Your task to perform on an android device: Show the shopping cart on costco. Add "razer kraken" to the cart on costco, then select checkout. Image 0: 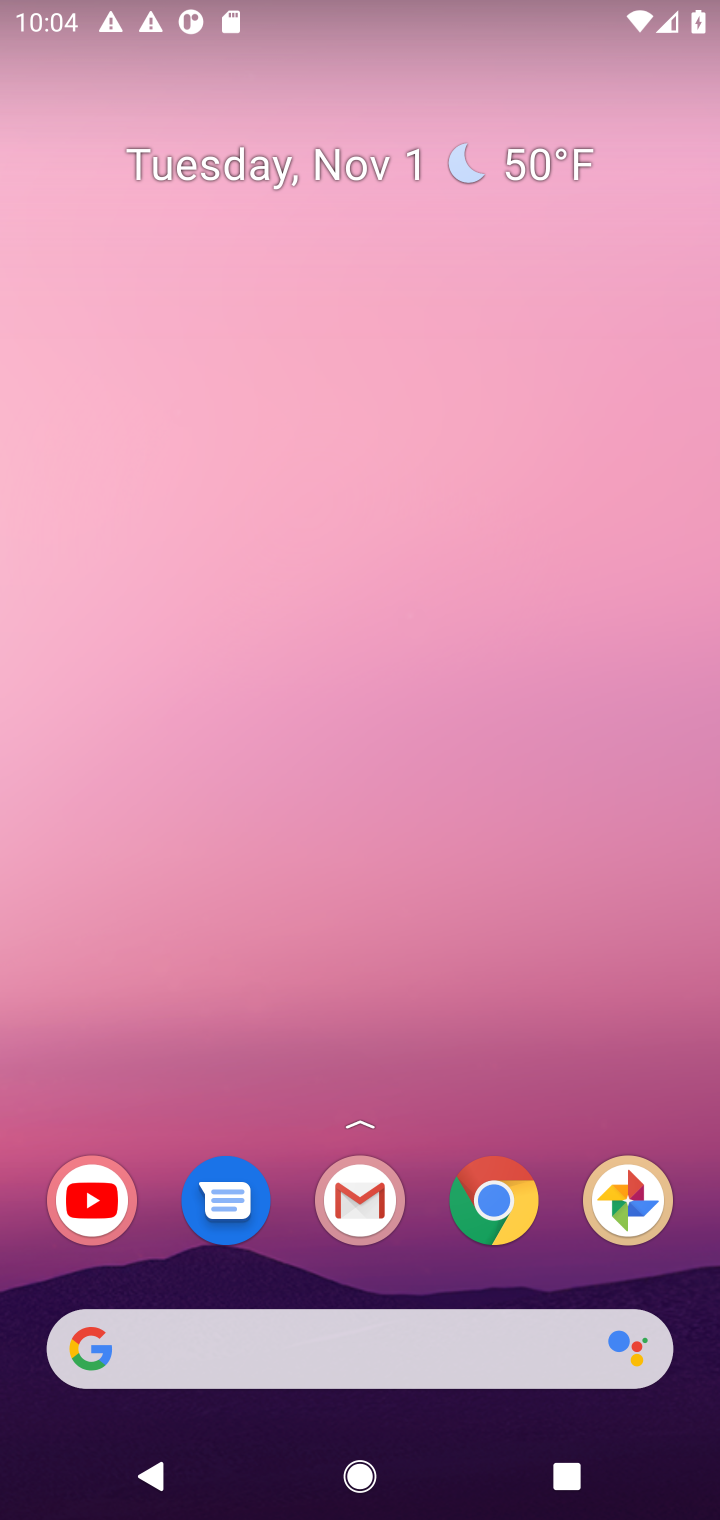
Step 0: click (300, 1351)
Your task to perform on an android device: Show the shopping cart on costco. Add "razer kraken" to the cart on costco, then select checkout. Image 1: 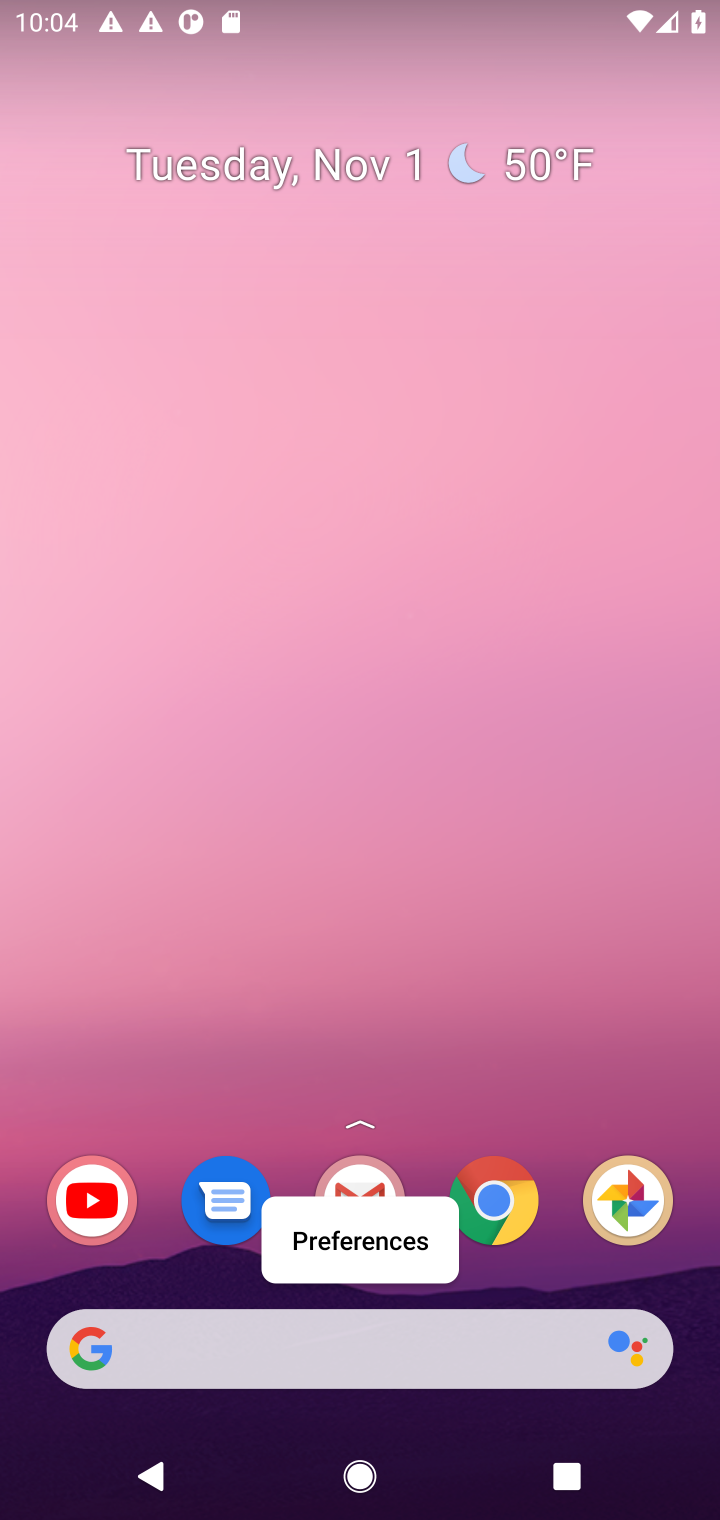
Step 1: click (298, 1346)
Your task to perform on an android device: Show the shopping cart on costco. Add "razer kraken" to the cart on costco, then select checkout. Image 2: 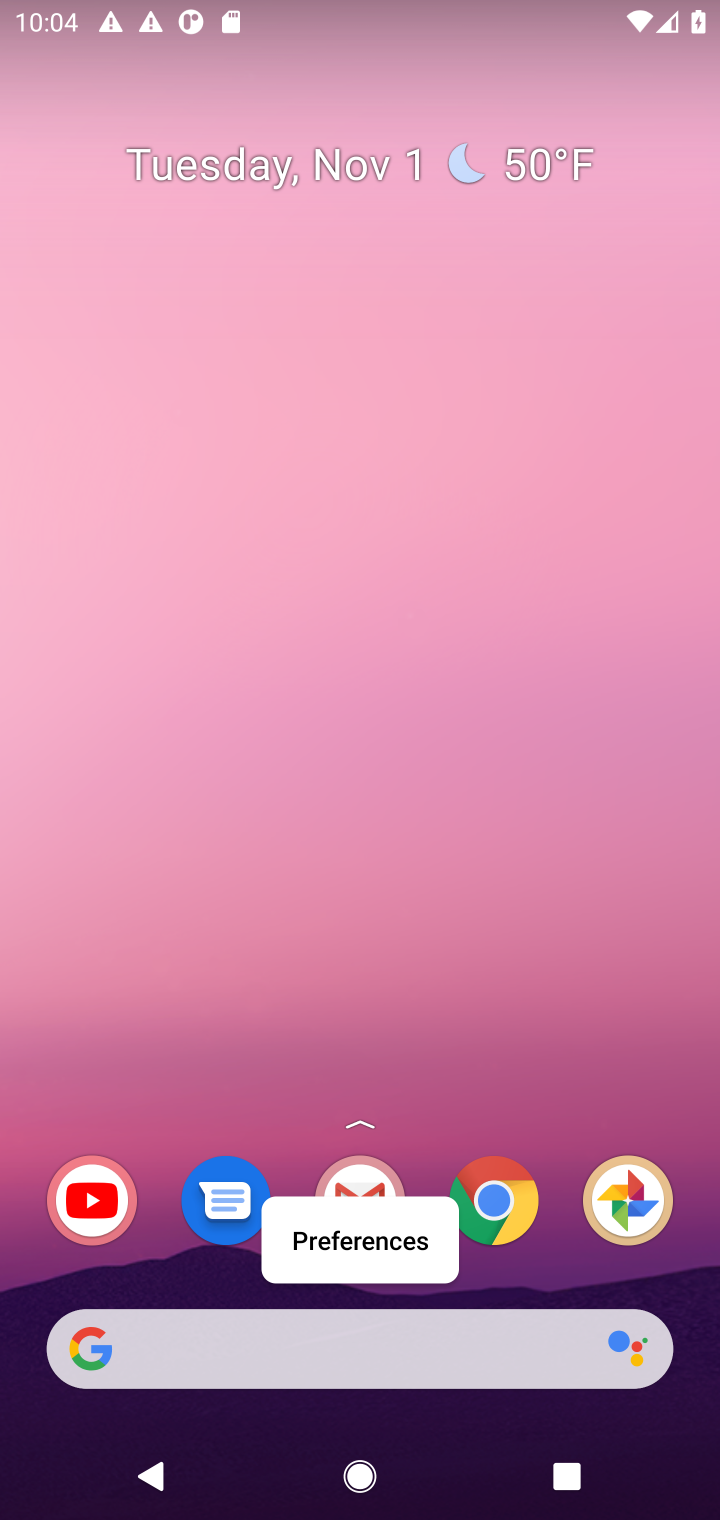
Step 2: click (298, 1346)
Your task to perform on an android device: Show the shopping cart on costco. Add "razer kraken" to the cart on costco, then select checkout. Image 3: 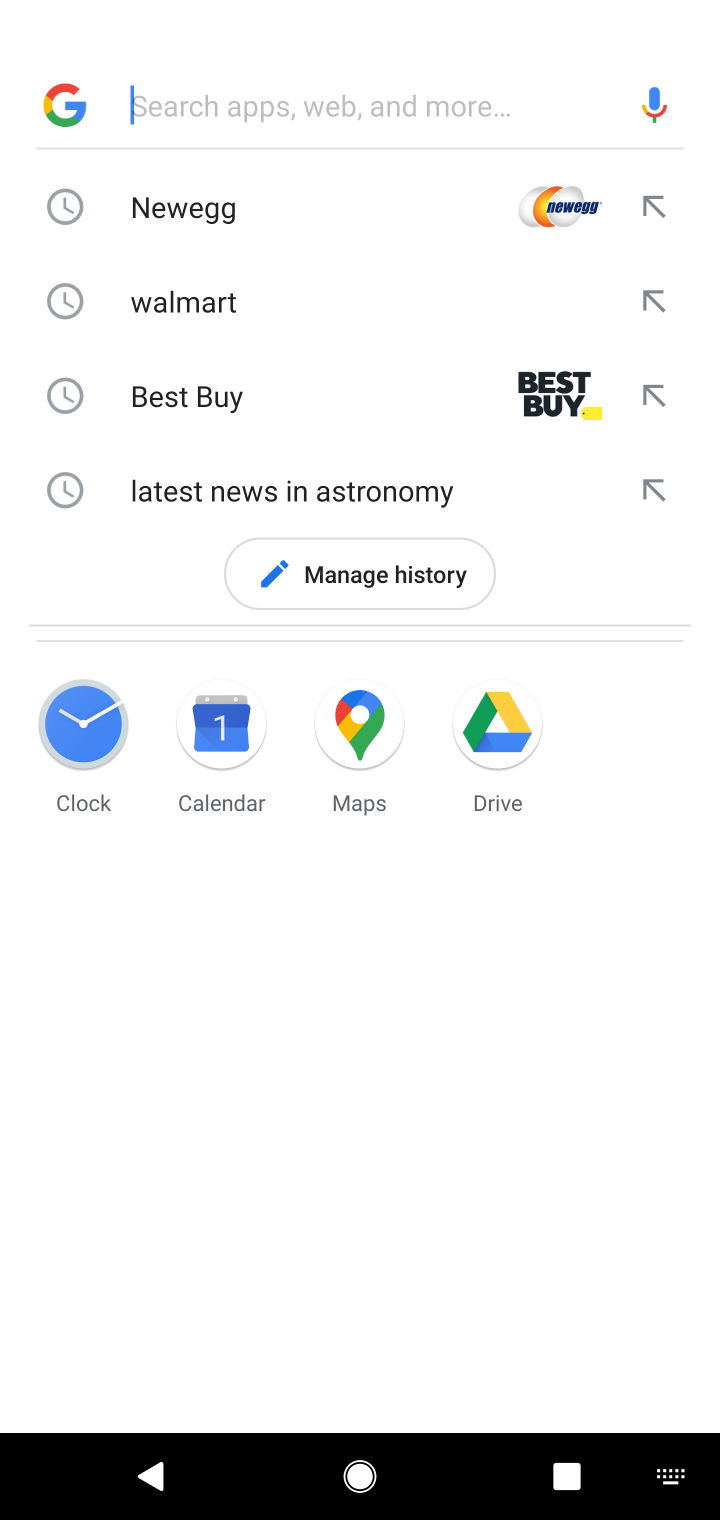
Step 3: type "costco"
Your task to perform on an android device: Show the shopping cart on costco. Add "razer kraken" to the cart on costco, then select checkout. Image 4: 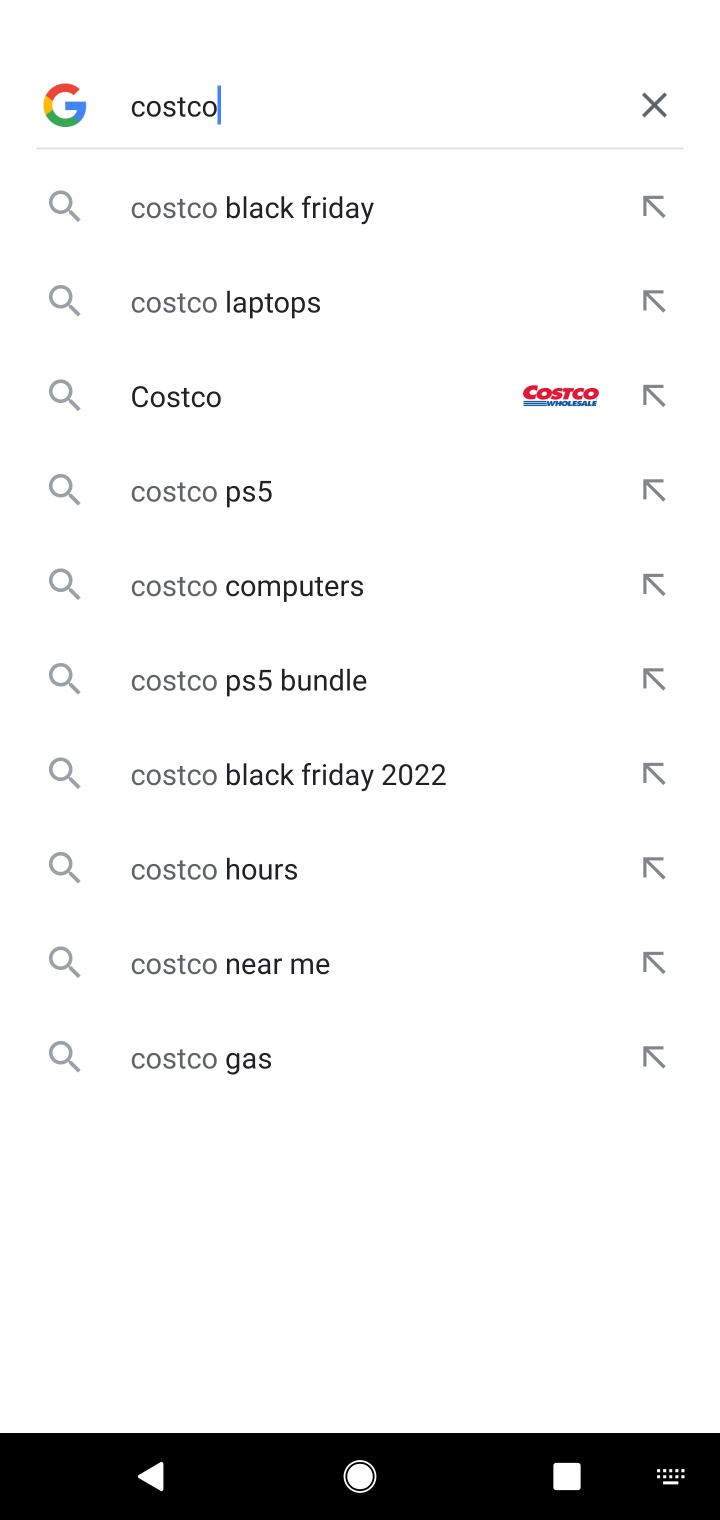
Step 4: click (319, 380)
Your task to perform on an android device: Show the shopping cart on costco. Add "razer kraken" to the cart on costco, then select checkout. Image 5: 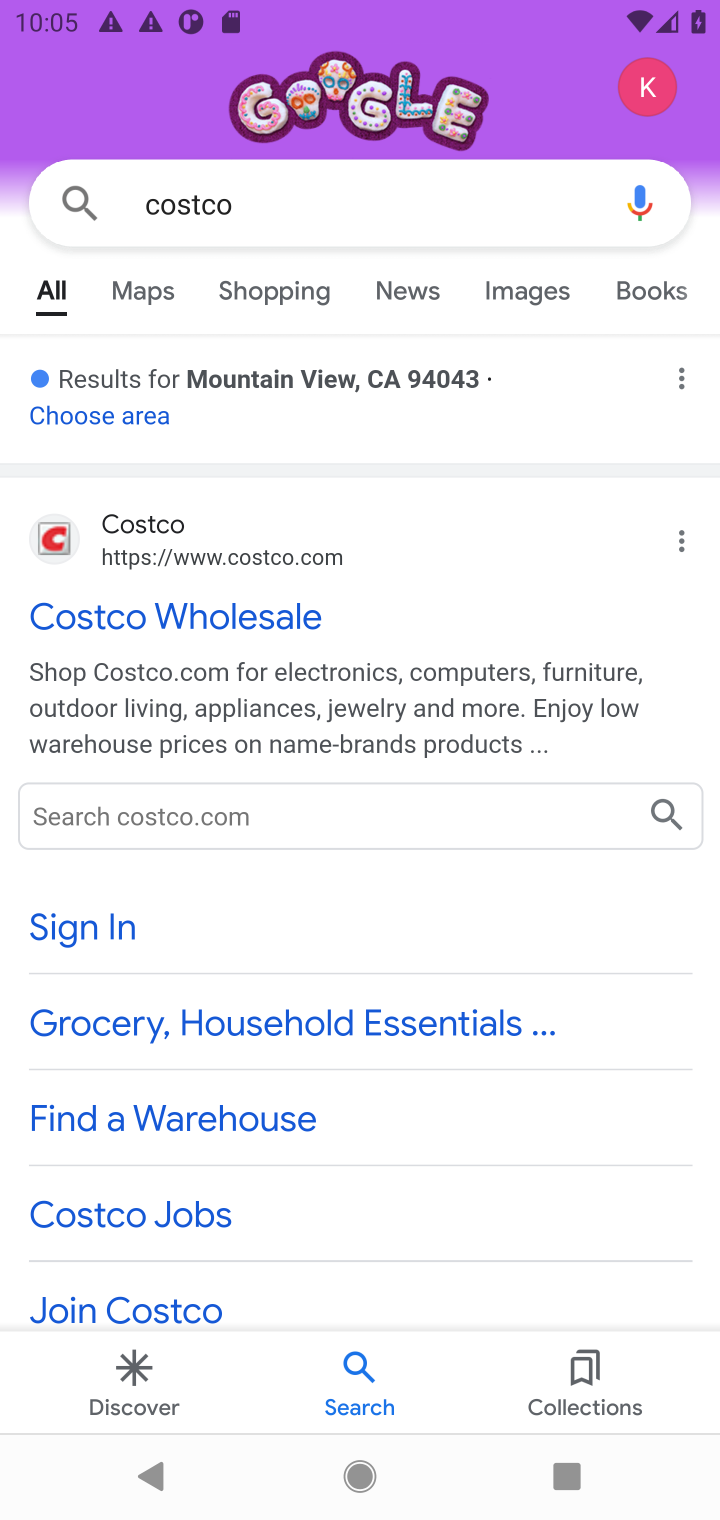
Step 5: click (157, 628)
Your task to perform on an android device: Show the shopping cart on costco. Add "razer kraken" to the cart on costco, then select checkout. Image 6: 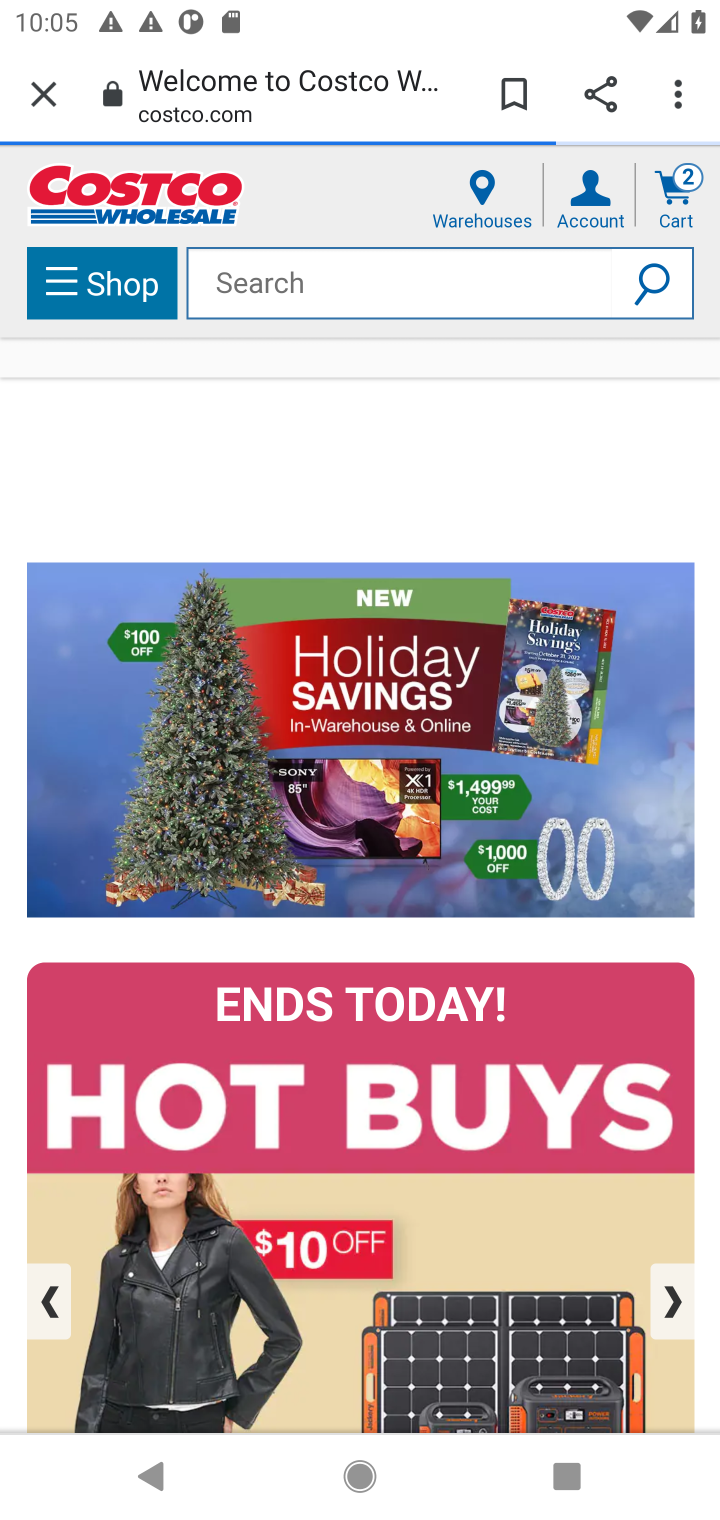
Step 6: click (399, 290)
Your task to perform on an android device: Show the shopping cart on costco. Add "razer kraken" to the cart on costco, then select checkout. Image 7: 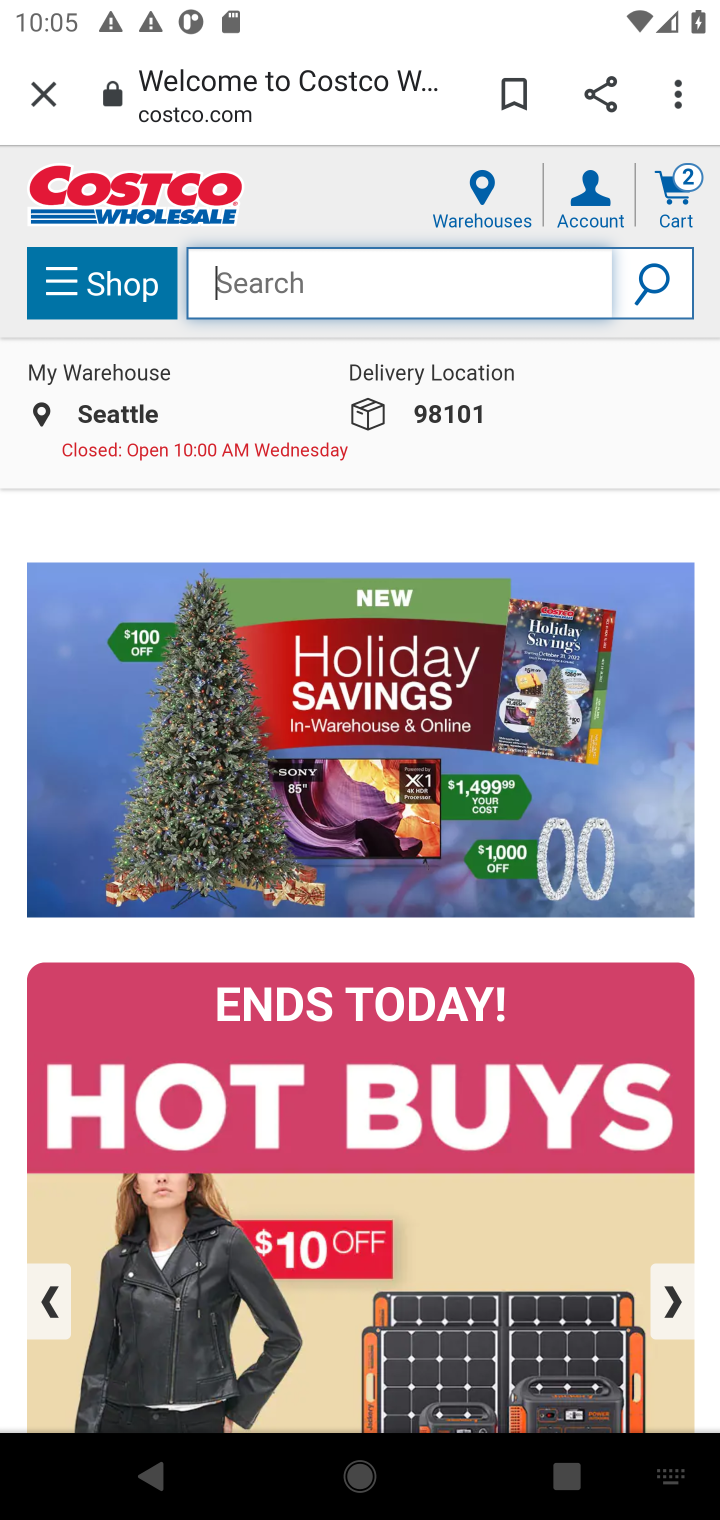
Step 7: type "razer kraken"
Your task to perform on an android device: Show the shopping cart on costco. Add "razer kraken" to the cart on costco, then select checkout. Image 8: 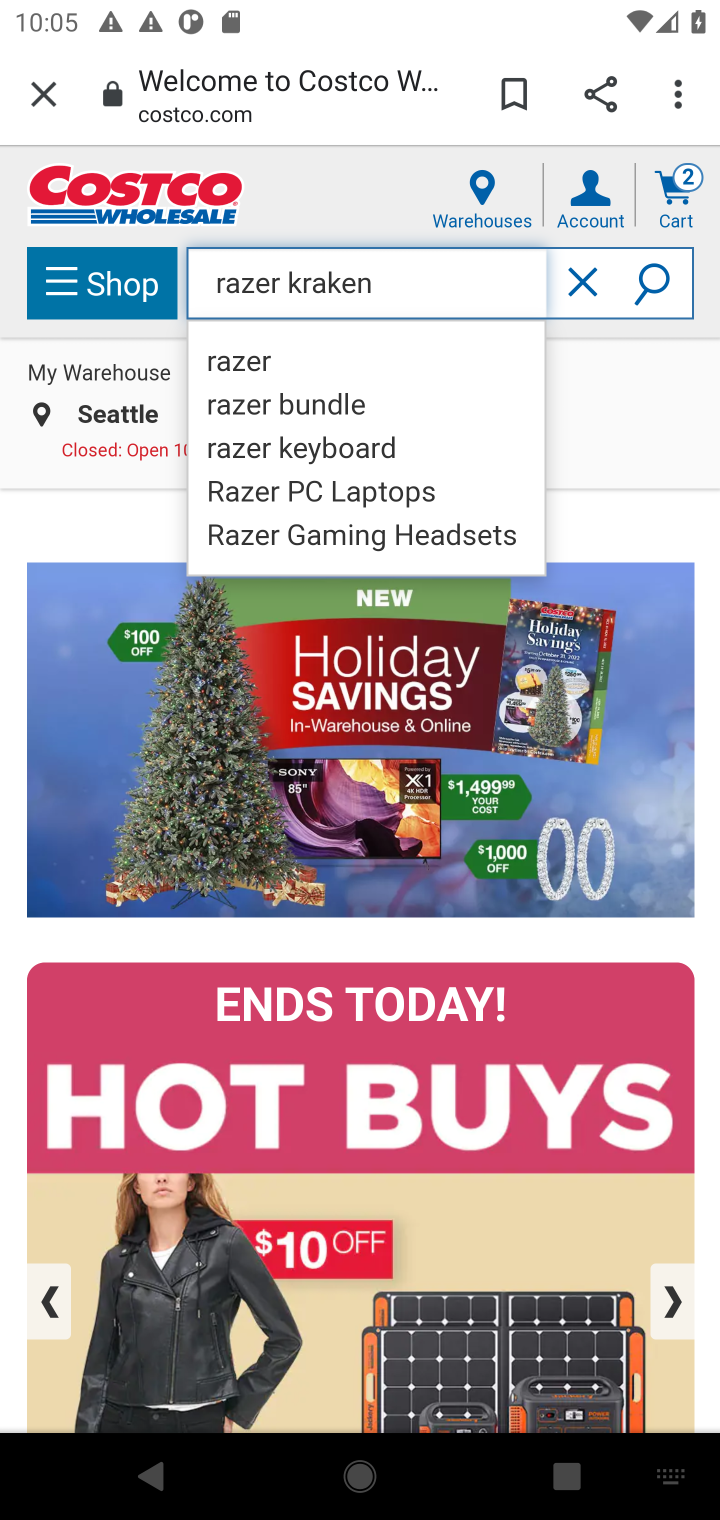
Step 8: click (644, 275)
Your task to perform on an android device: Show the shopping cart on costco. Add "razer kraken" to the cart on costco, then select checkout. Image 9: 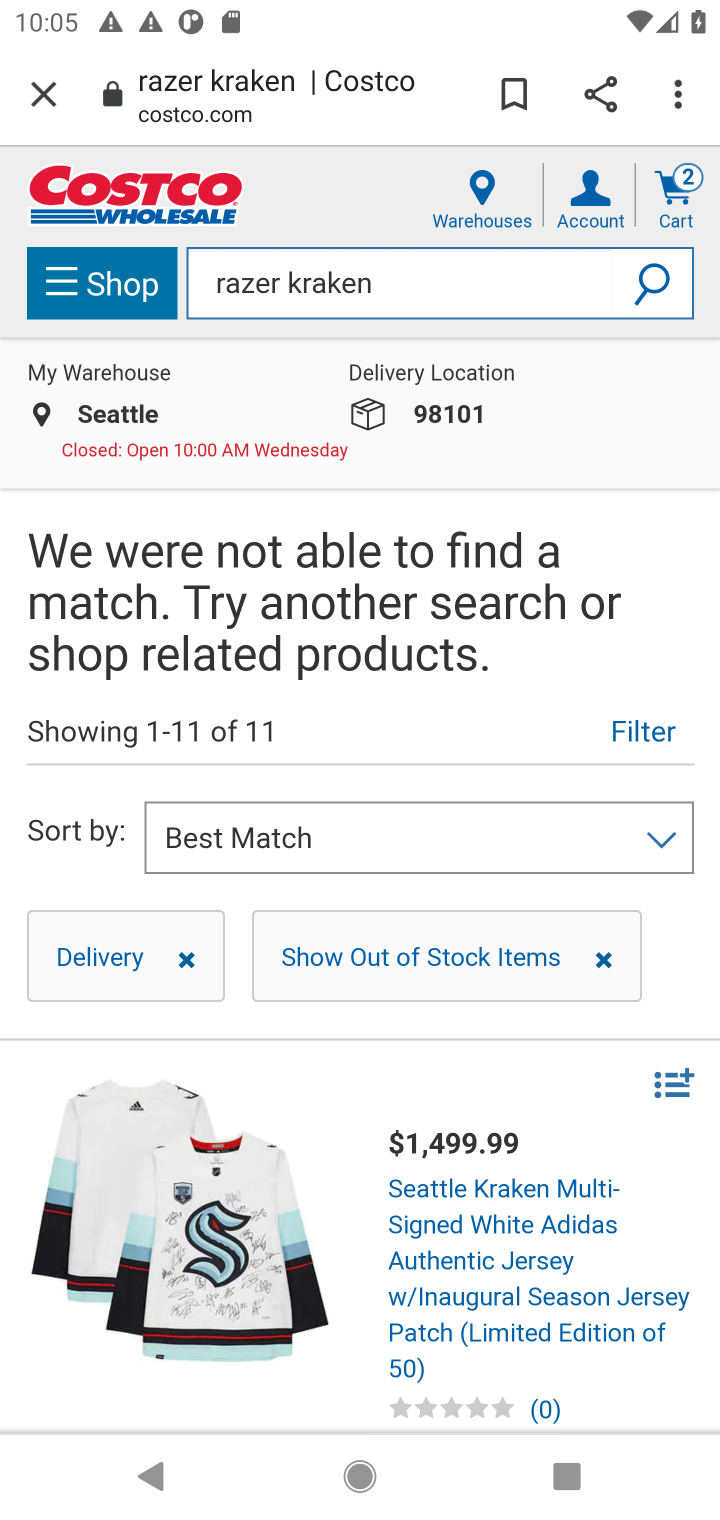
Step 9: drag from (462, 1034) to (399, 466)
Your task to perform on an android device: Show the shopping cart on costco. Add "razer kraken" to the cart on costco, then select checkout. Image 10: 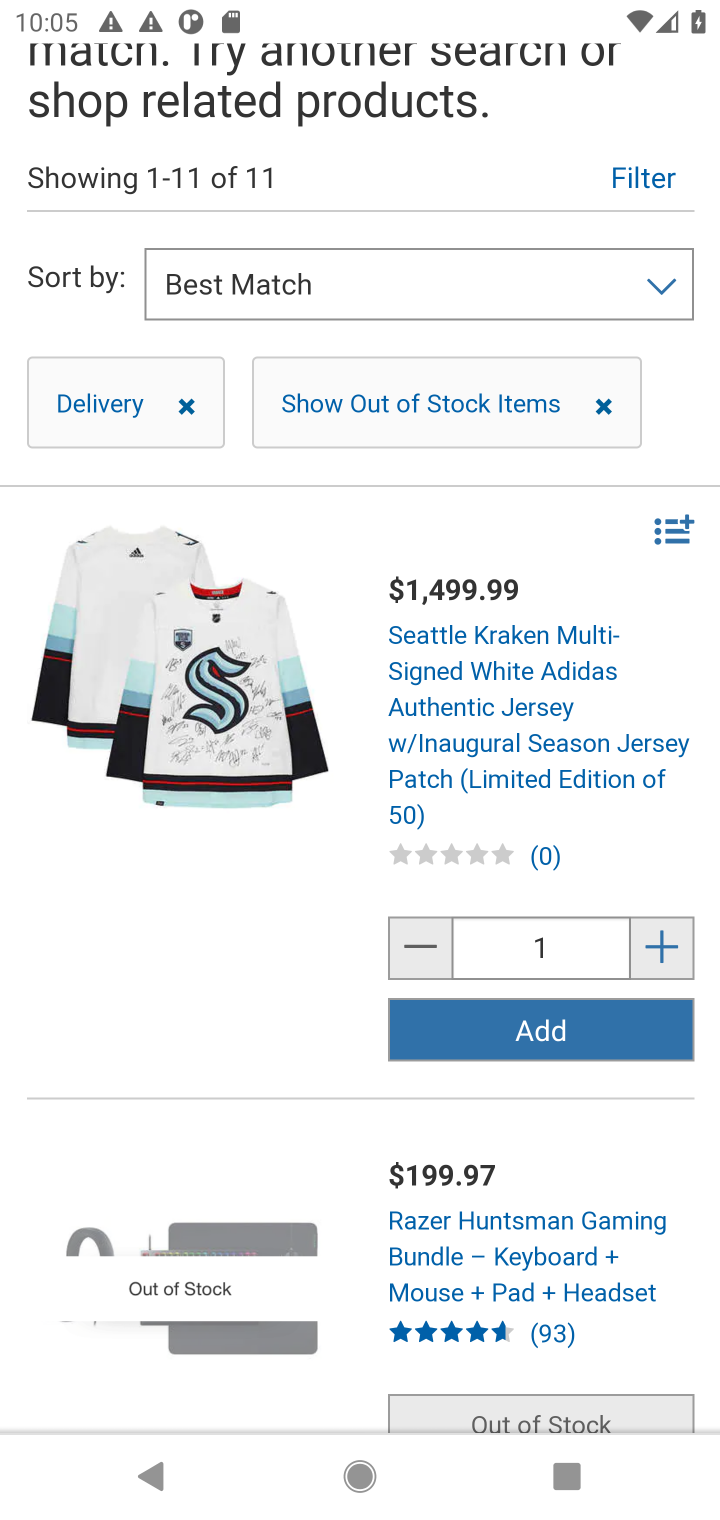
Step 10: drag from (518, 715) to (532, 881)
Your task to perform on an android device: Show the shopping cart on costco. Add "razer kraken" to the cart on costco, then select checkout. Image 11: 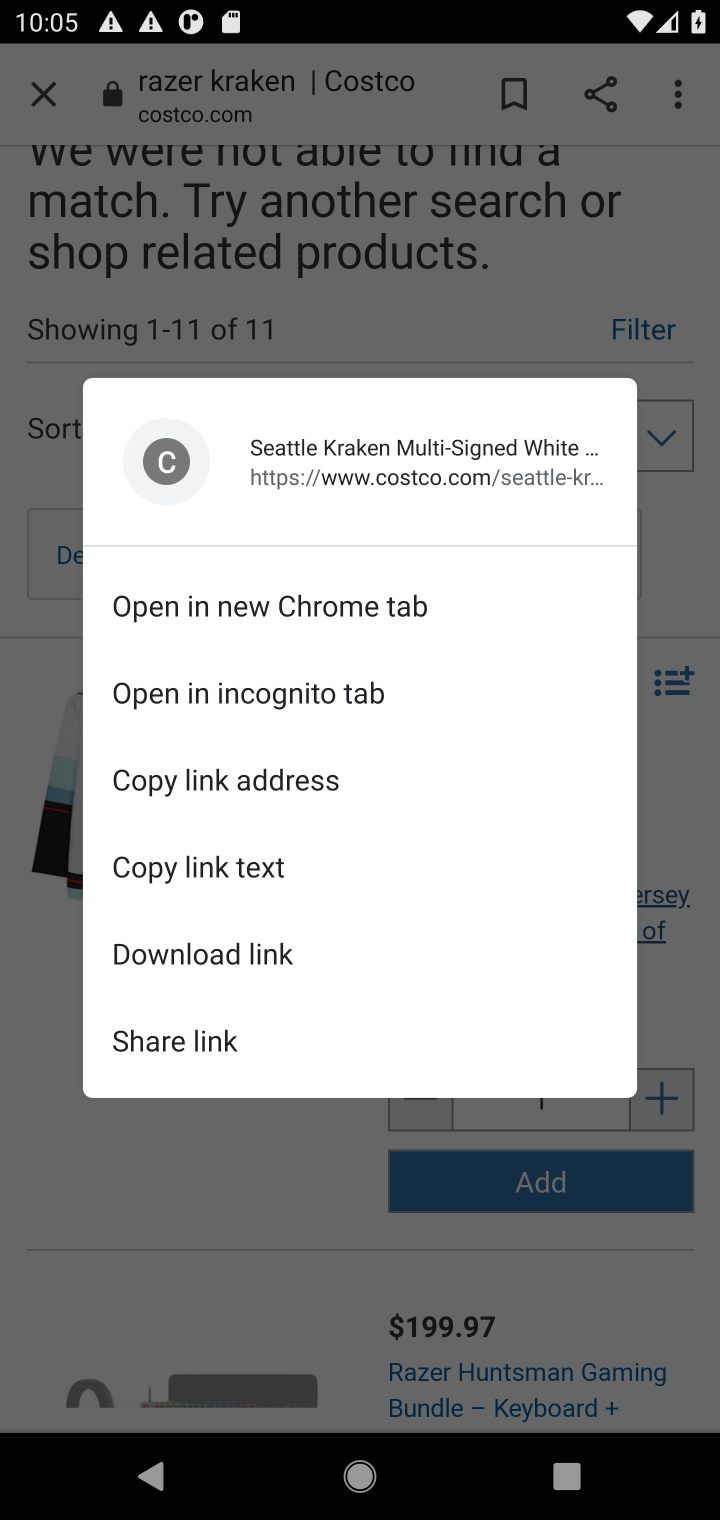
Step 11: drag from (485, 600) to (499, 672)
Your task to perform on an android device: Show the shopping cart on costco. Add "razer kraken" to the cart on costco, then select checkout. Image 12: 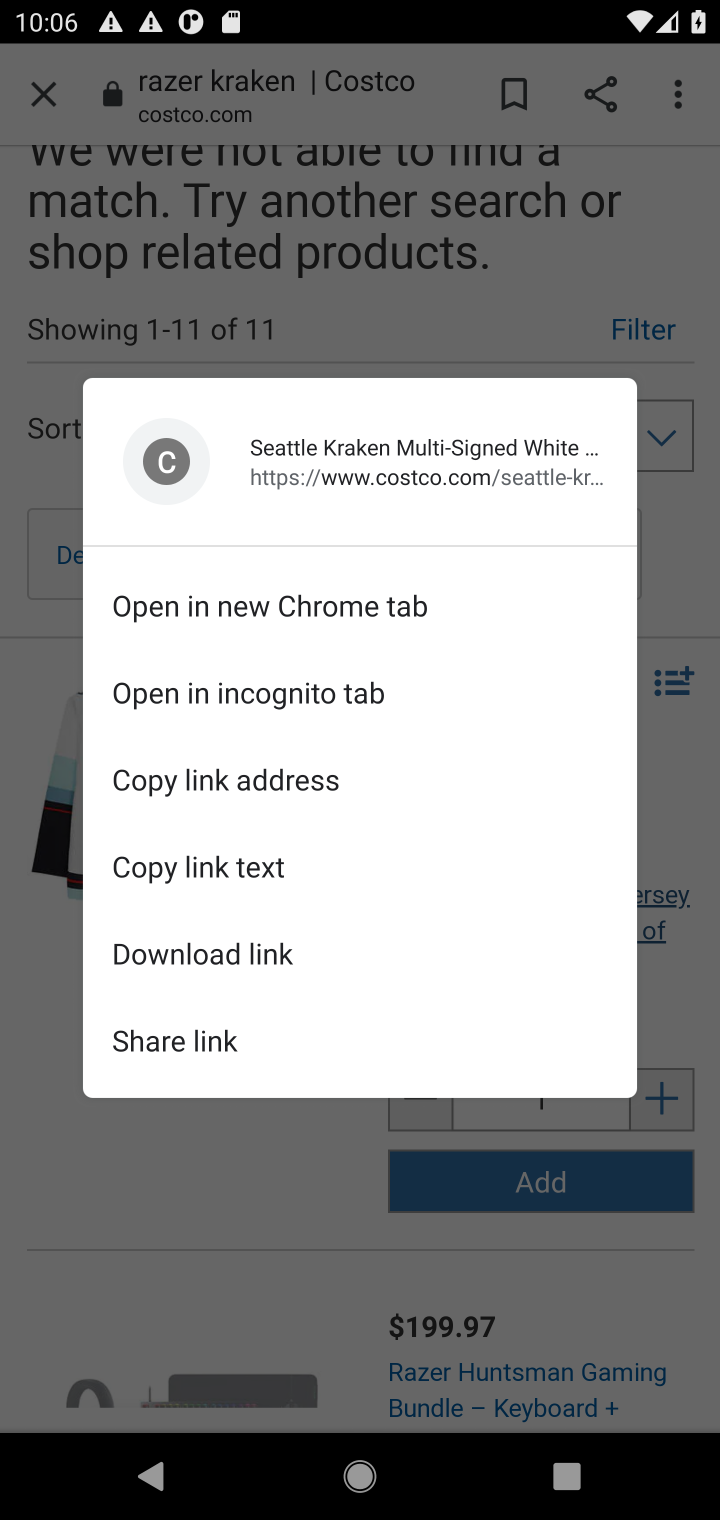
Step 12: click (597, 260)
Your task to perform on an android device: Show the shopping cart on costco. Add "razer kraken" to the cart on costco, then select checkout. Image 13: 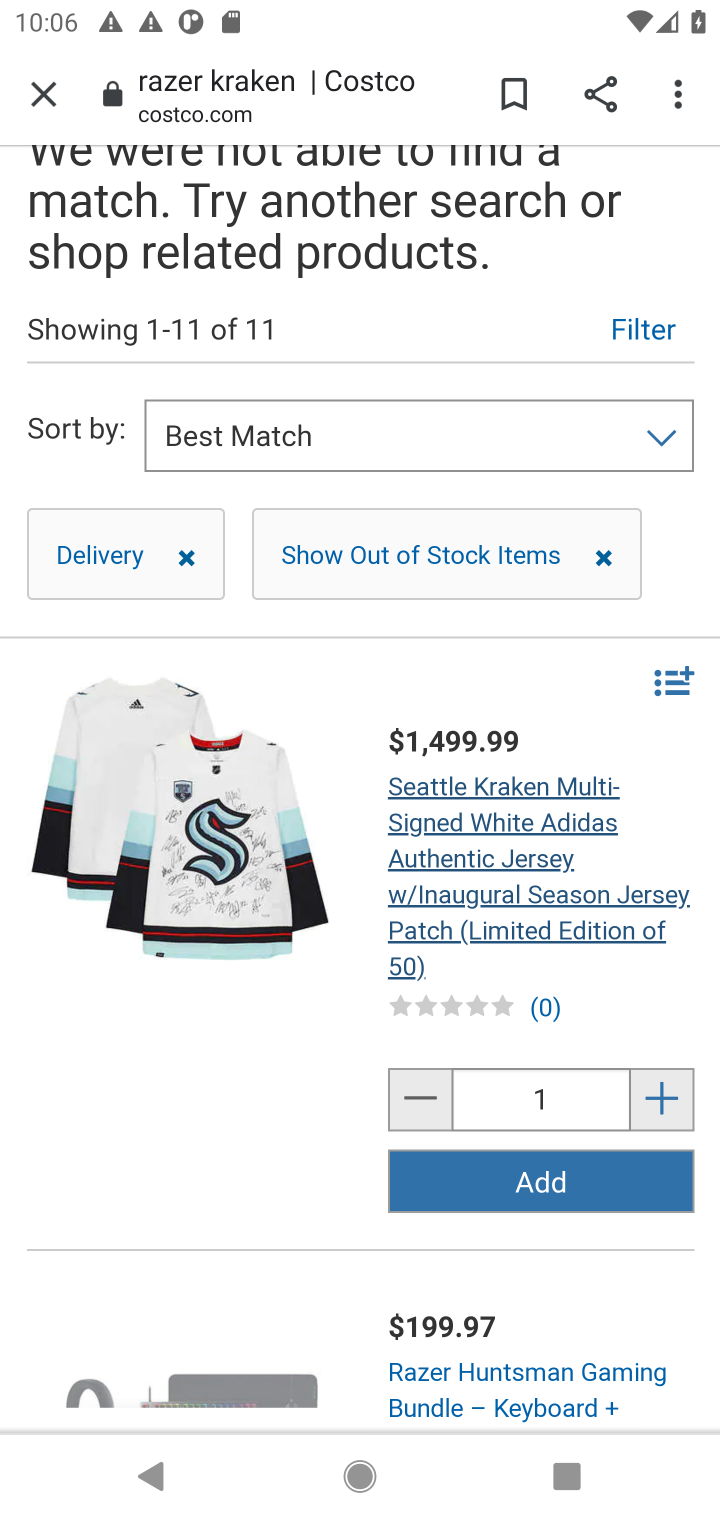
Step 13: drag from (520, 283) to (526, 944)
Your task to perform on an android device: Show the shopping cart on costco. Add "razer kraken" to the cart on costco, then select checkout. Image 14: 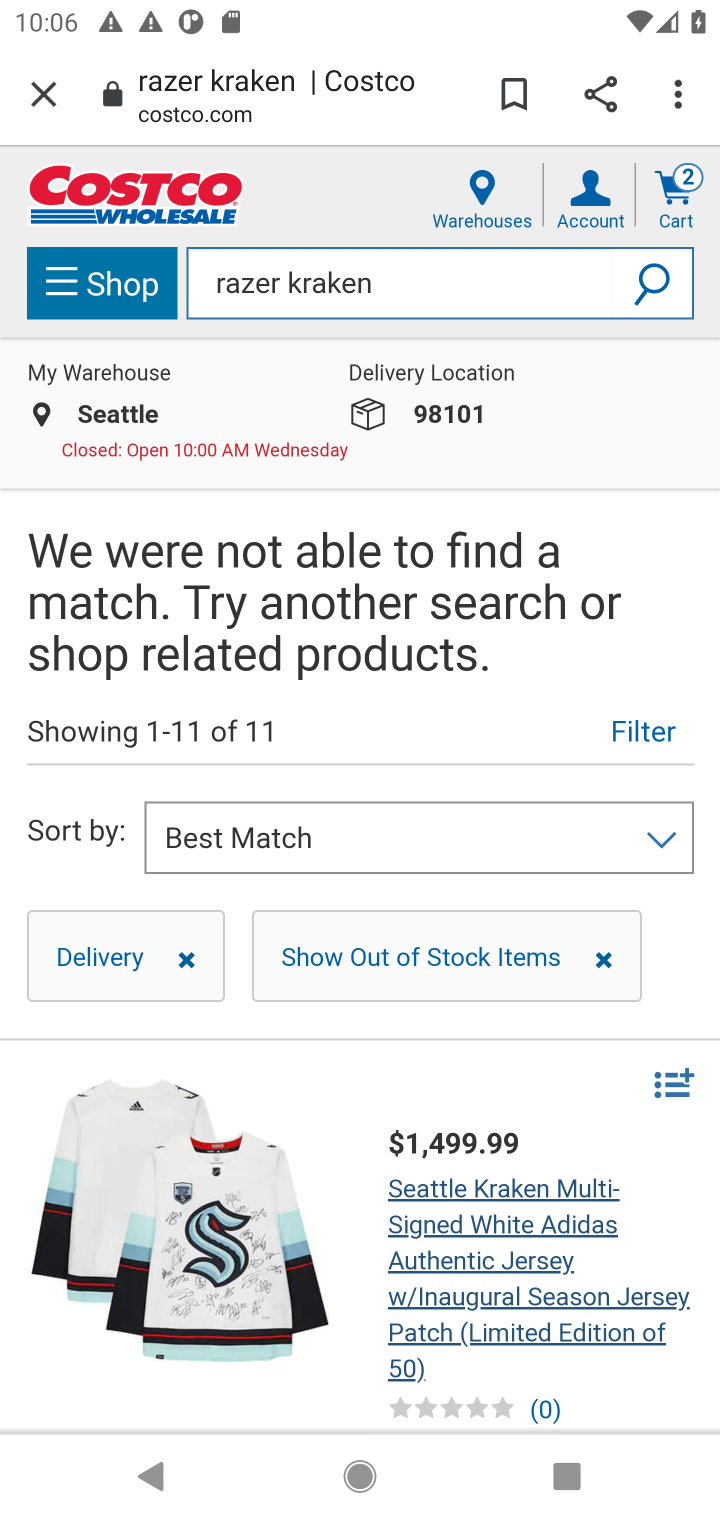
Step 14: drag from (417, 533) to (447, 1012)
Your task to perform on an android device: Show the shopping cart on costco. Add "razer kraken" to the cart on costco, then select checkout. Image 15: 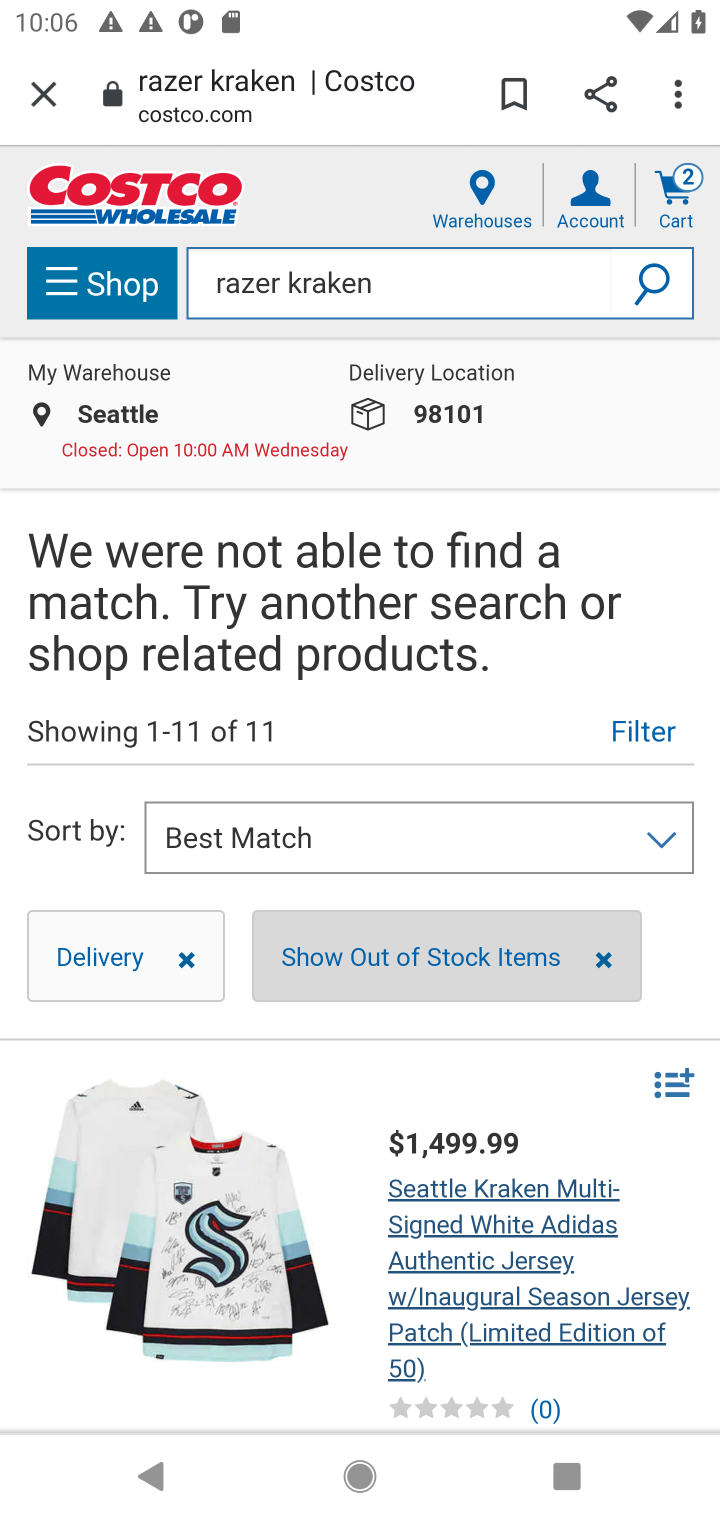
Step 15: click (669, 188)
Your task to perform on an android device: Show the shopping cart on costco. Add "razer kraken" to the cart on costco, then select checkout. Image 16: 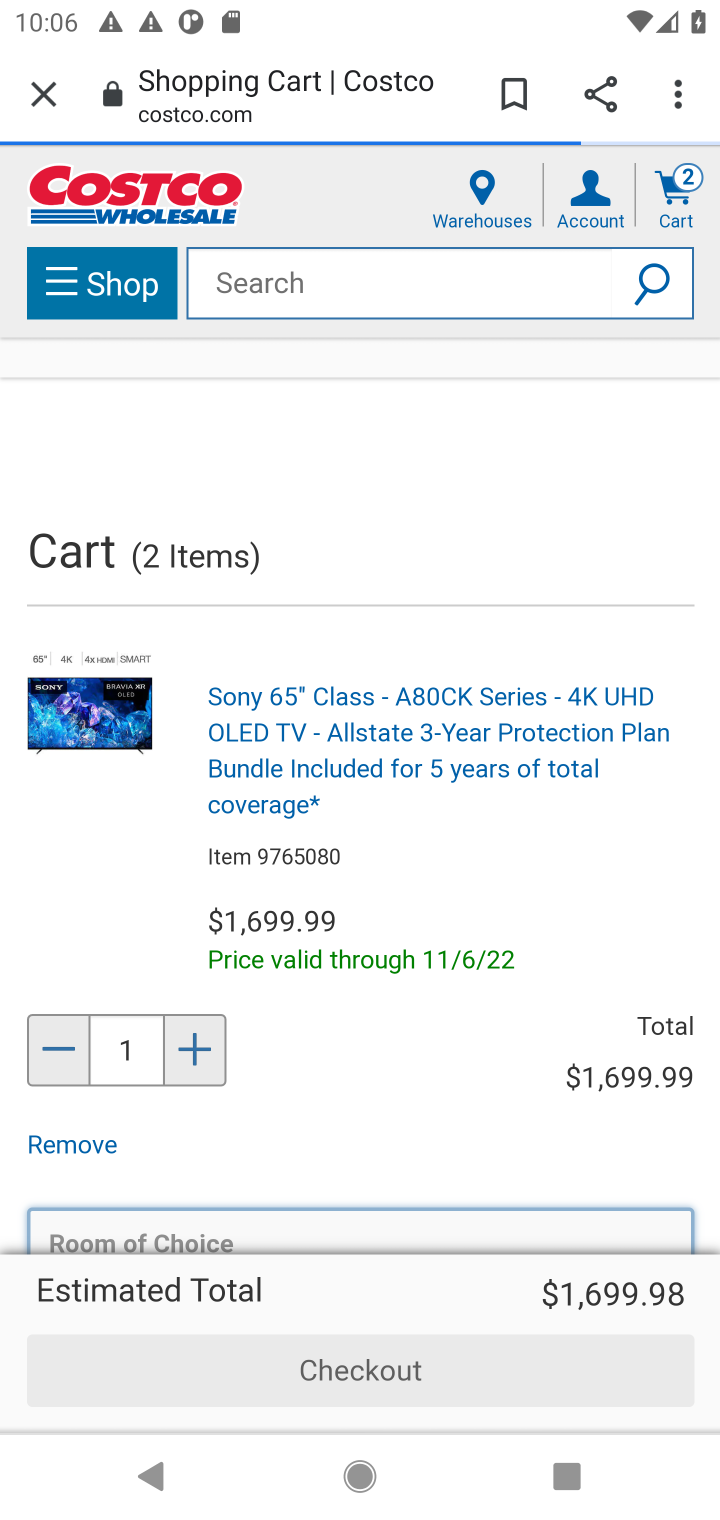
Step 16: drag from (428, 1071) to (430, 589)
Your task to perform on an android device: Show the shopping cart on costco. Add "razer kraken" to the cart on costco, then select checkout. Image 17: 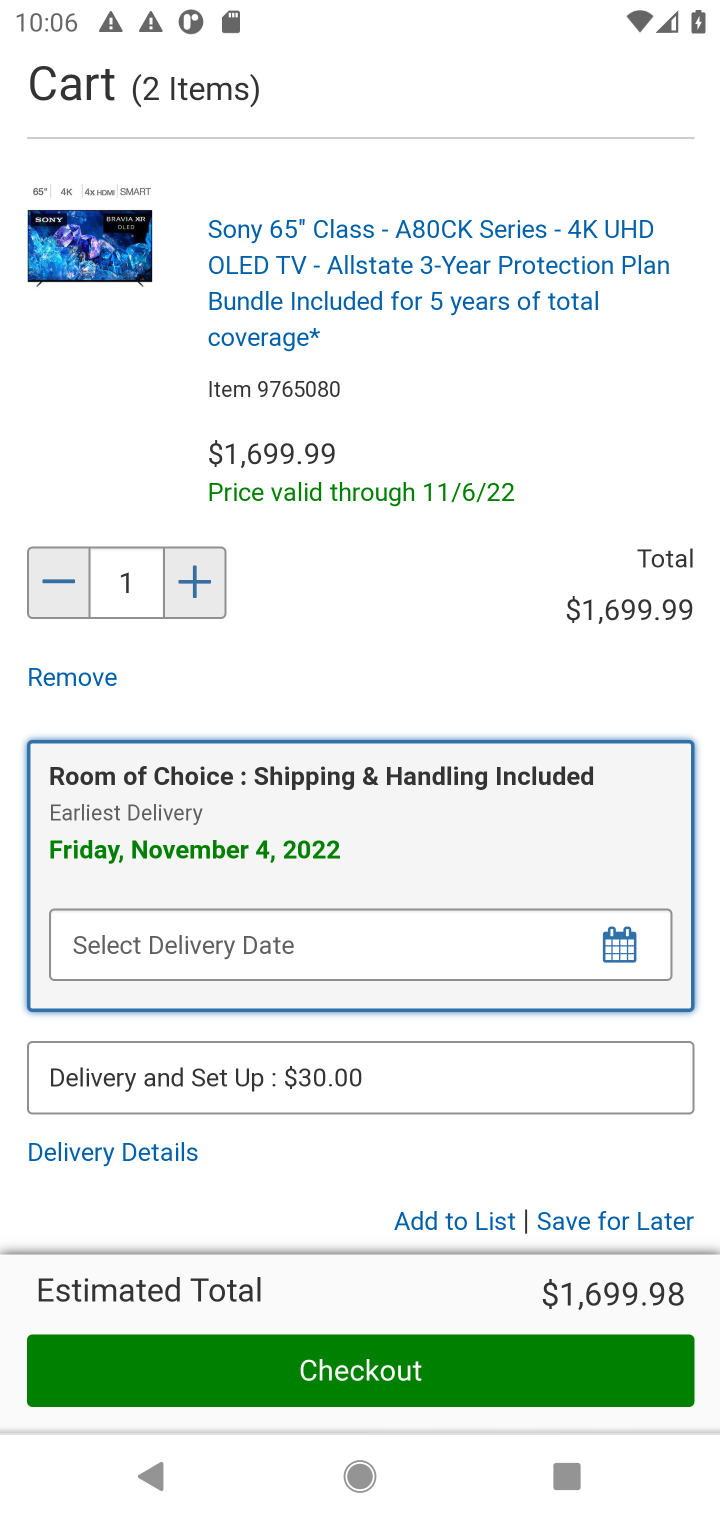
Step 17: click (414, 1353)
Your task to perform on an android device: Show the shopping cart on costco. Add "razer kraken" to the cart on costco, then select checkout. Image 18: 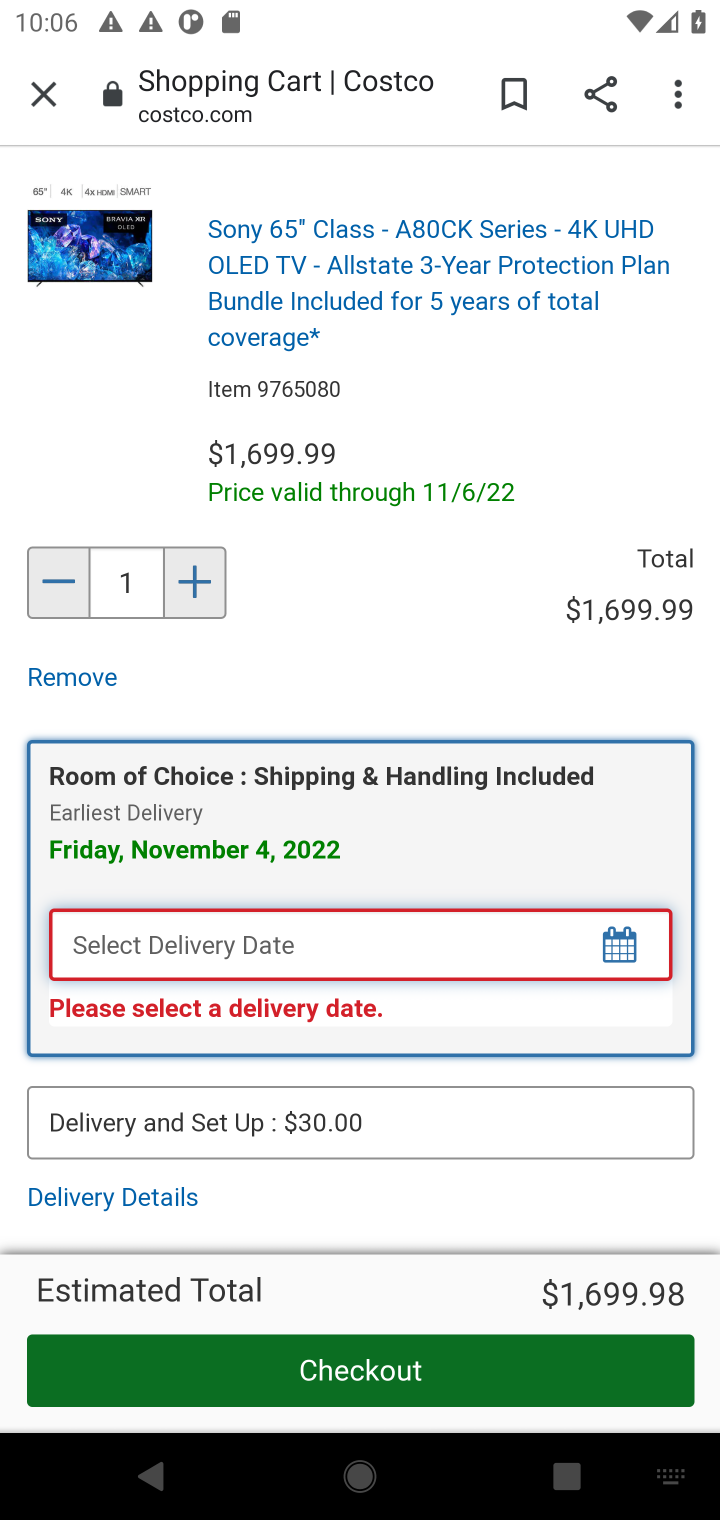
Step 18: click (392, 1356)
Your task to perform on an android device: Show the shopping cart on costco. Add "razer kraken" to the cart on costco, then select checkout. Image 19: 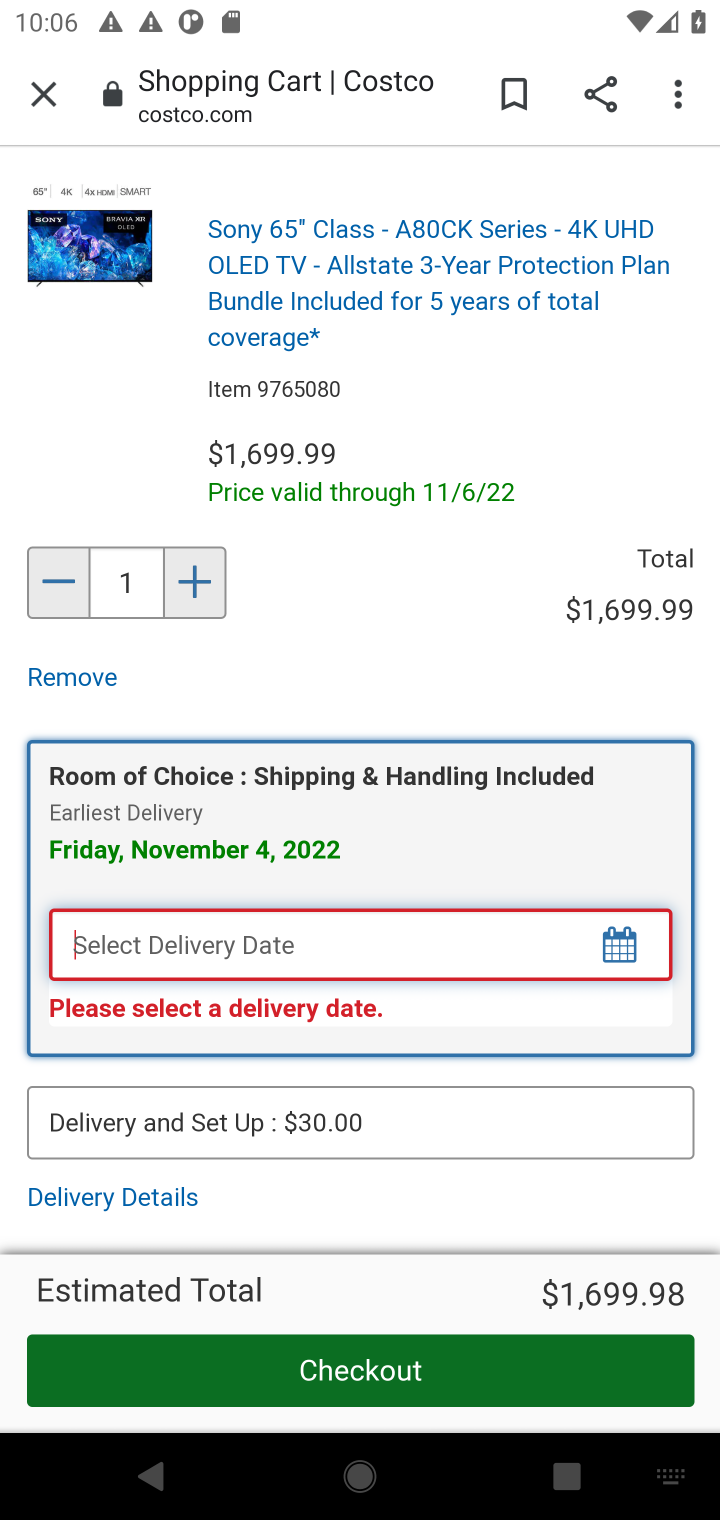
Step 19: task complete